Your task to perform on an android device: open the mobile data screen to see how much data has been used Image 0: 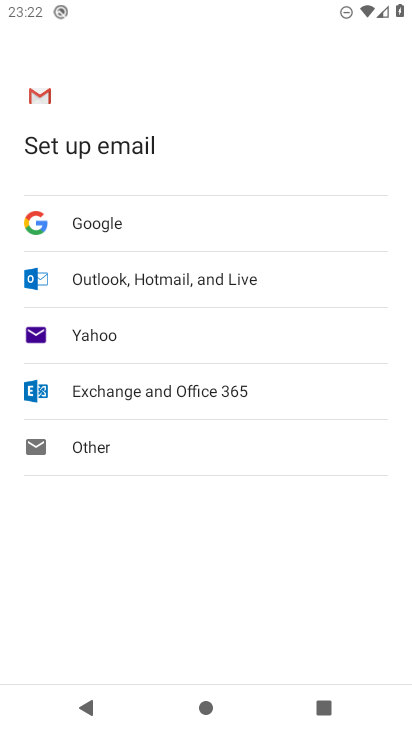
Step 0: press home button
Your task to perform on an android device: open the mobile data screen to see how much data has been used Image 1: 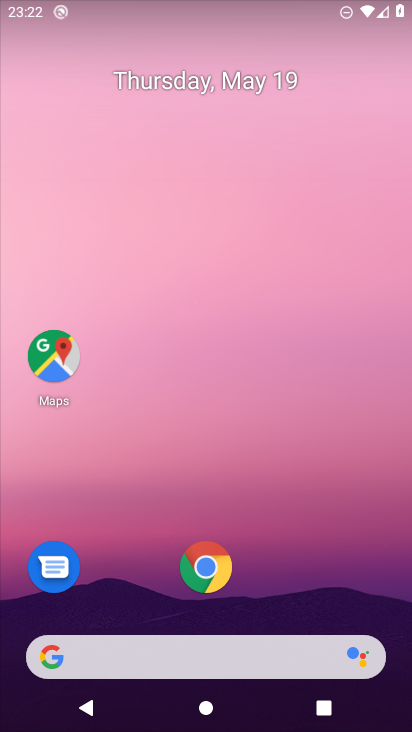
Step 1: drag from (239, 623) to (242, 84)
Your task to perform on an android device: open the mobile data screen to see how much data has been used Image 2: 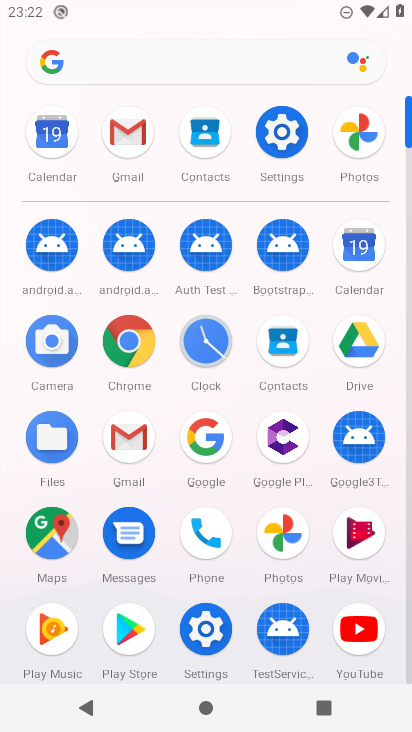
Step 2: click (281, 126)
Your task to perform on an android device: open the mobile data screen to see how much data has been used Image 3: 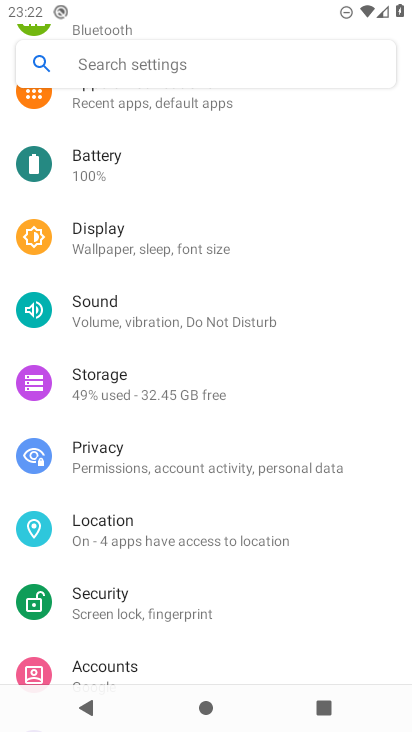
Step 3: drag from (146, 131) to (137, 627)
Your task to perform on an android device: open the mobile data screen to see how much data has been used Image 4: 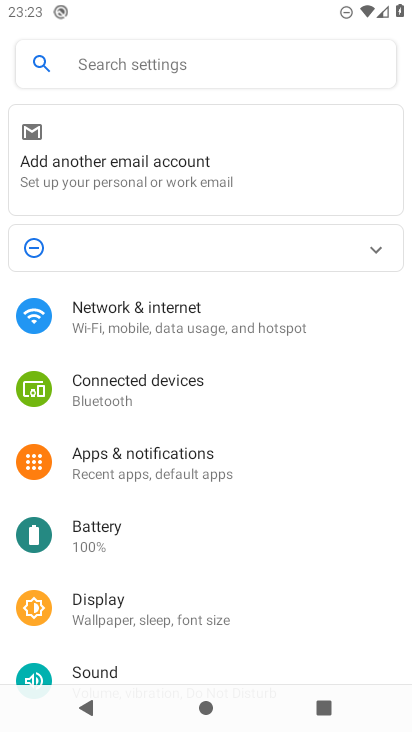
Step 4: click (163, 312)
Your task to perform on an android device: open the mobile data screen to see how much data has been used Image 5: 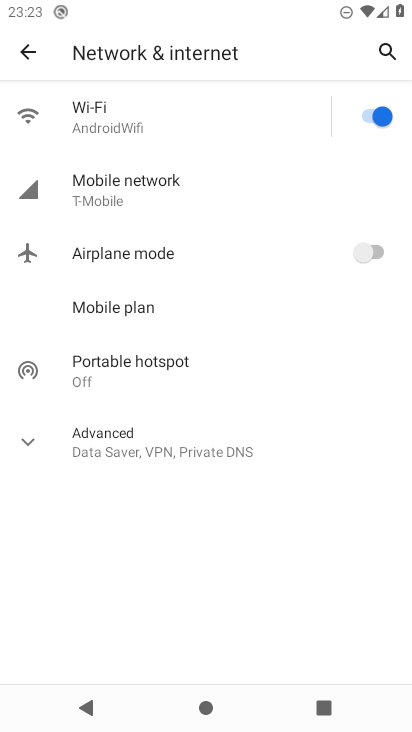
Step 5: click (173, 185)
Your task to perform on an android device: open the mobile data screen to see how much data has been used Image 6: 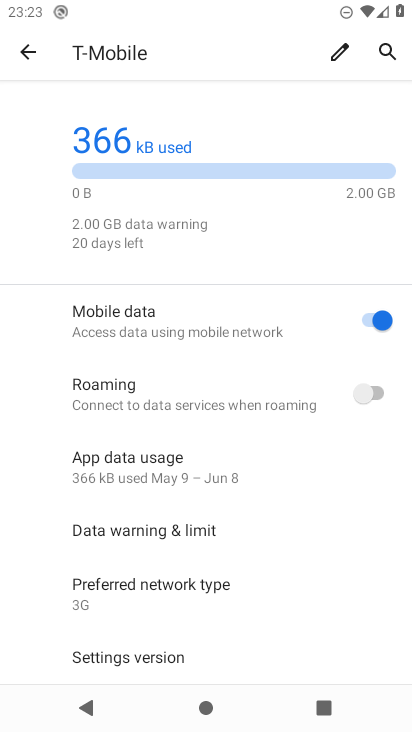
Step 6: drag from (223, 629) to (262, 158)
Your task to perform on an android device: open the mobile data screen to see how much data has been used Image 7: 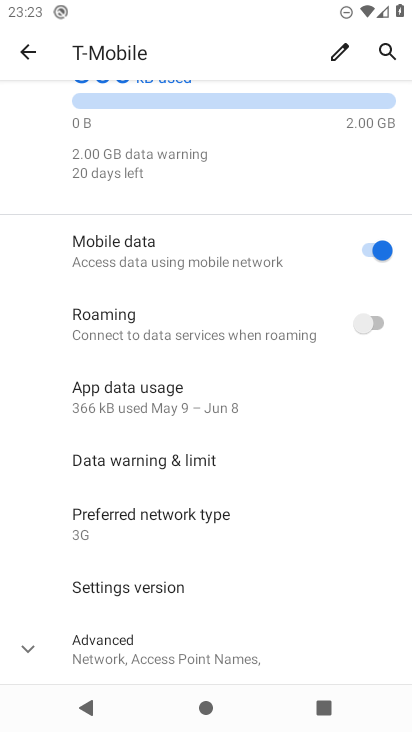
Step 7: click (170, 394)
Your task to perform on an android device: open the mobile data screen to see how much data has been used Image 8: 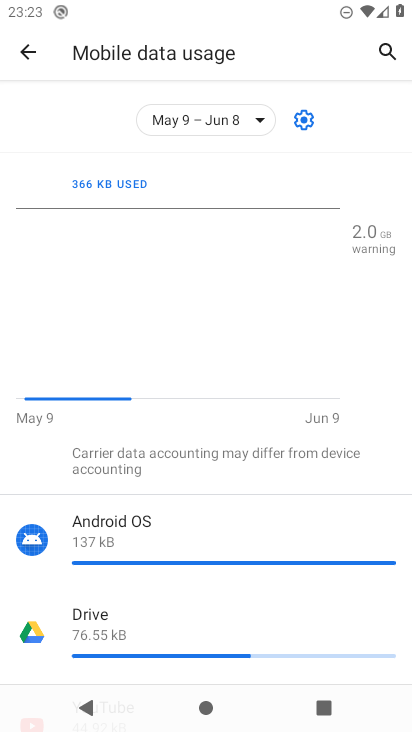
Step 8: task complete